Your task to perform on an android device: change the clock display to analog Image 0: 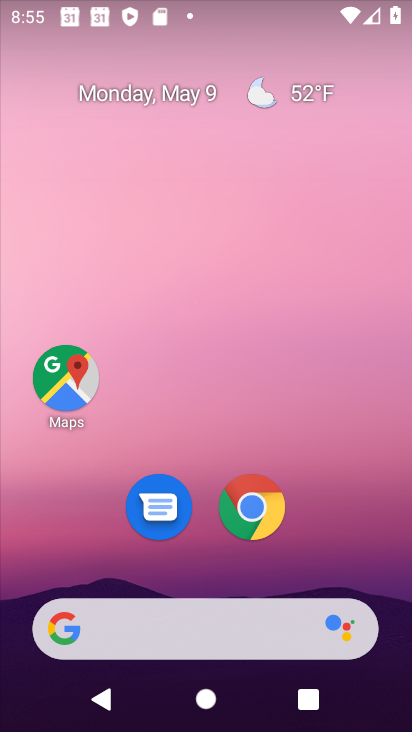
Step 0: drag from (348, 551) to (248, 128)
Your task to perform on an android device: change the clock display to analog Image 1: 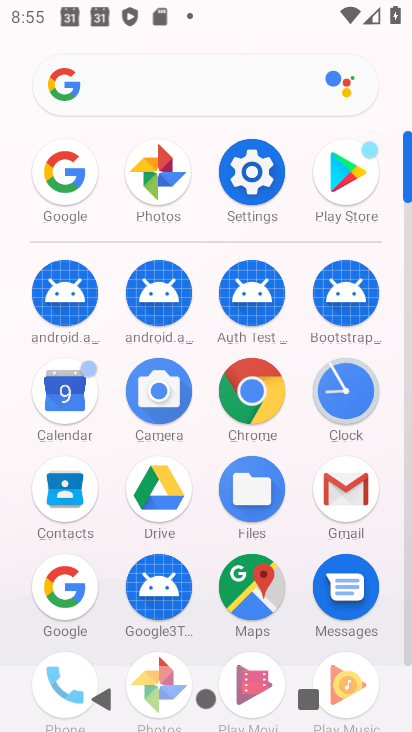
Step 1: click (345, 393)
Your task to perform on an android device: change the clock display to analog Image 2: 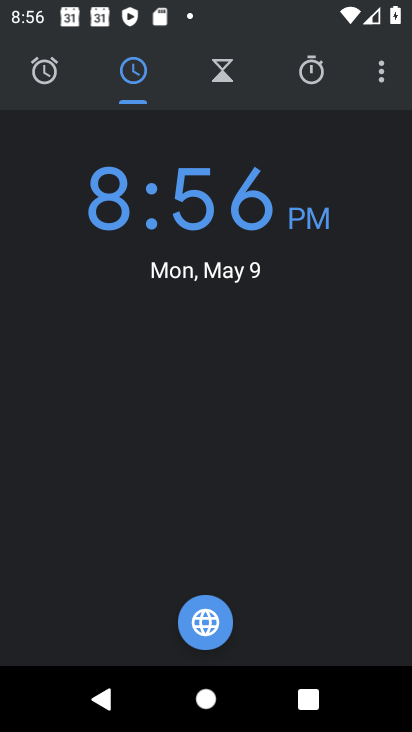
Step 2: click (384, 70)
Your task to perform on an android device: change the clock display to analog Image 3: 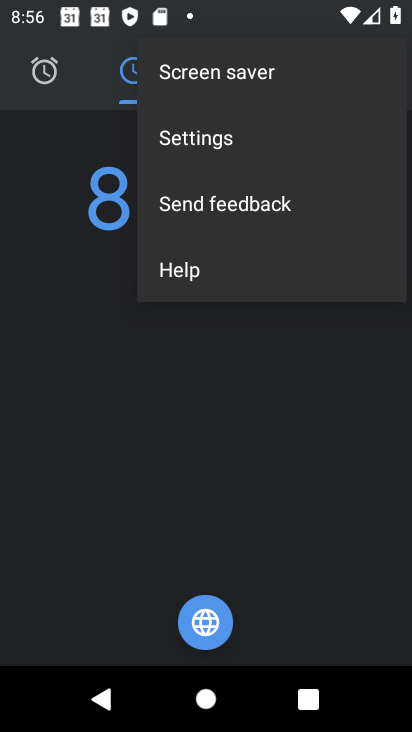
Step 3: click (230, 135)
Your task to perform on an android device: change the clock display to analog Image 4: 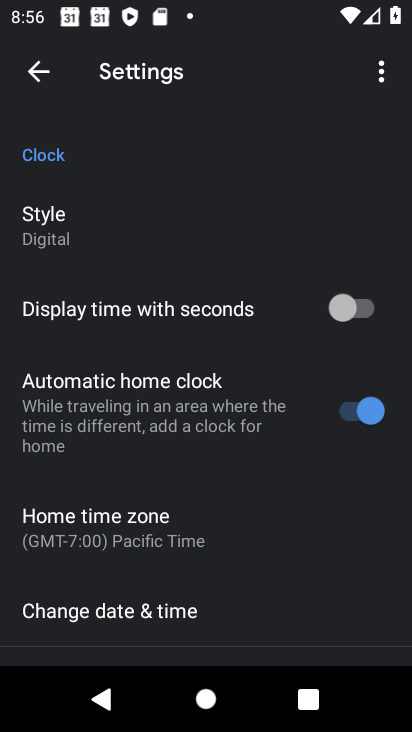
Step 4: click (80, 228)
Your task to perform on an android device: change the clock display to analog Image 5: 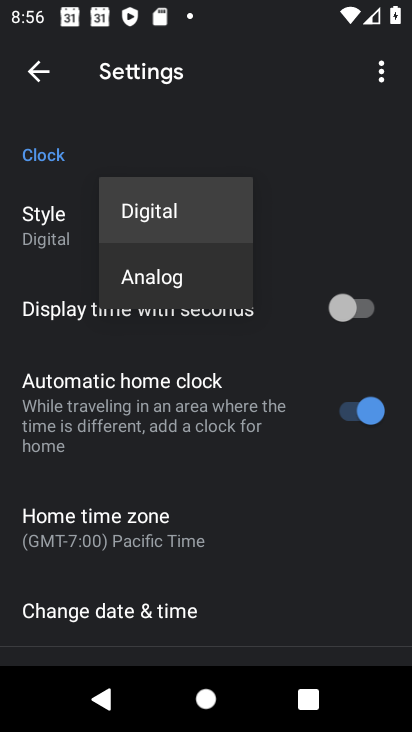
Step 5: click (174, 273)
Your task to perform on an android device: change the clock display to analog Image 6: 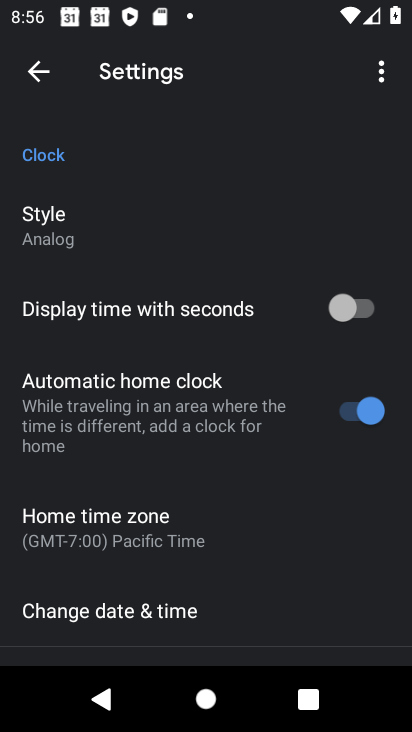
Step 6: task complete